Your task to perform on an android device: Open Chrome and go to the settings page Image 0: 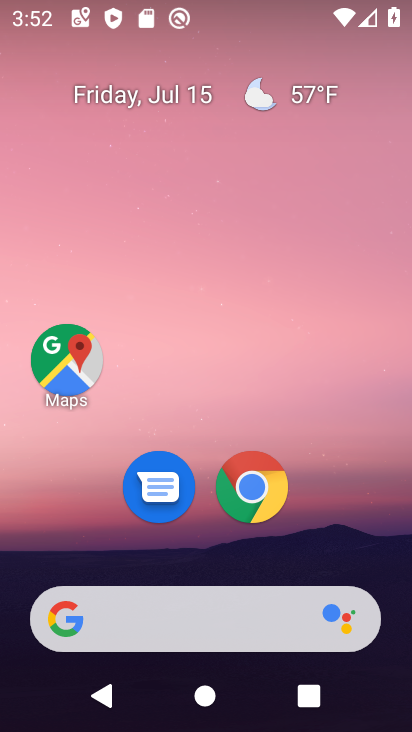
Step 0: drag from (192, 583) to (150, 331)
Your task to perform on an android device: Open Chrome and go to the settings page Image 1: 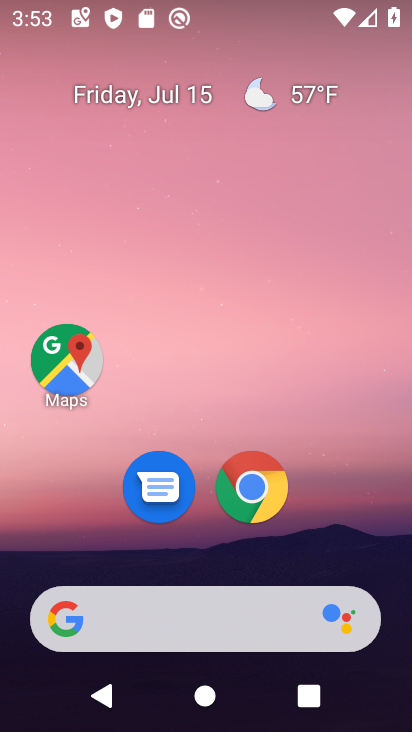
Step 1: drag from (197, 588) to (225, 2)
Your task to perform on an android device: Open Chrome and go to the settings page Image 2: 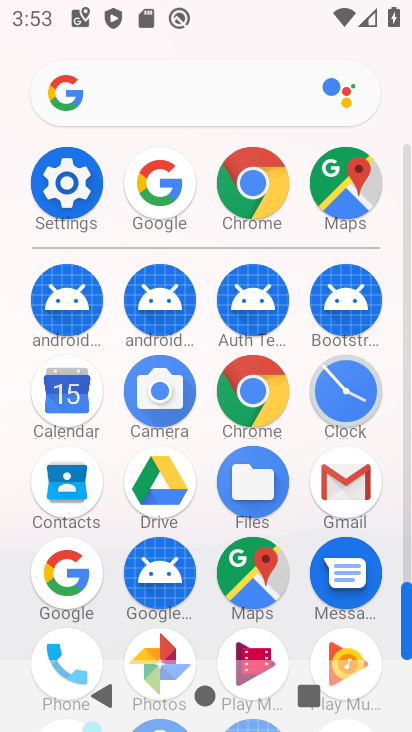
Step 2: click (256, 207)
Your task to perform on an android device: Open Chrome and go to the settings page Image 3: 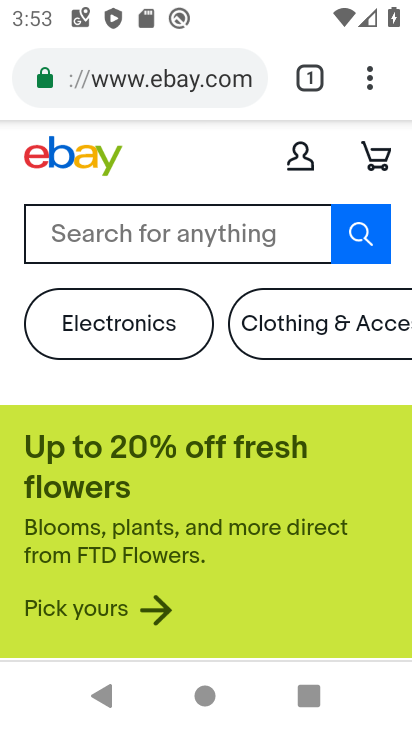
Step 3: click (373, 92)
Your task to perform on an android device: Open Chrome and go to the settings page Image 4: 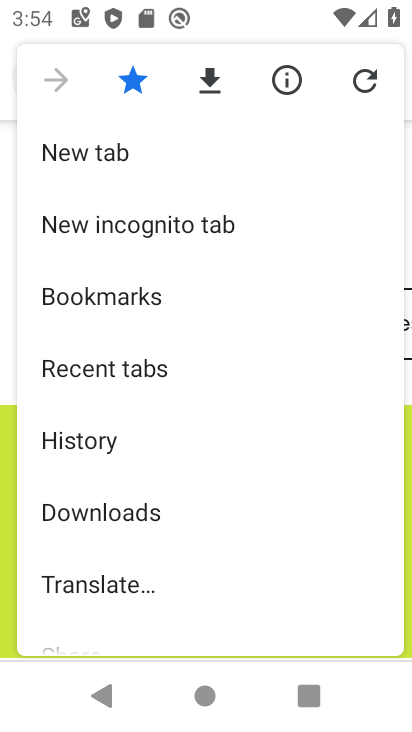
Step 4: drag from (138, 531) to (155, 370)
Your task to perform on an android device: Open Chrome and go to the settings page Image 5: 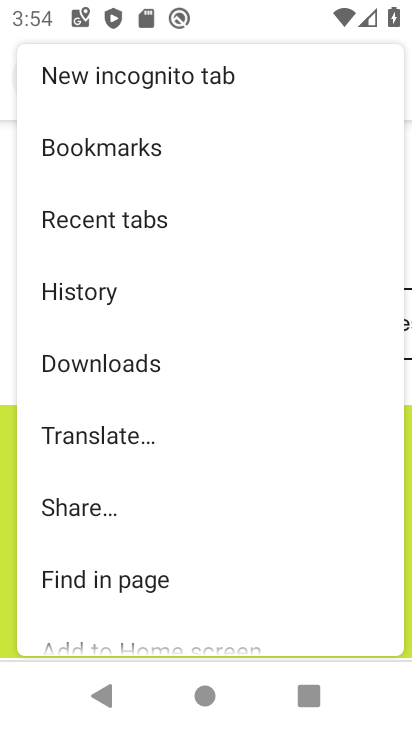
Step 5: drag from (112, 541) to (133, 394)
Your task to perform on an android device: Open Chrome and go to the settings page Image 6: 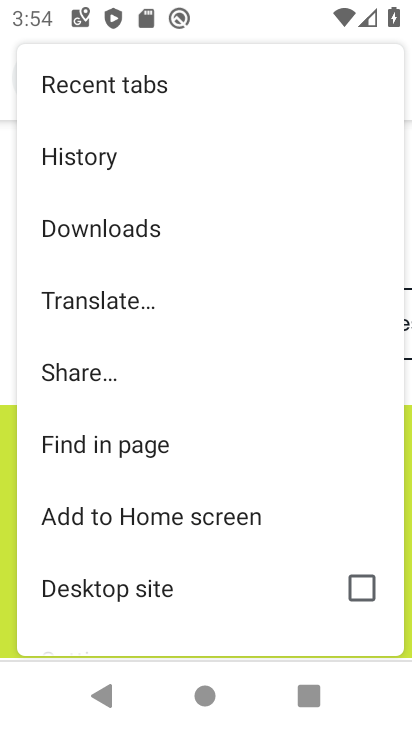
Step 6: drag from (138, 489) to (185, 159)
Your task to perform on an android device: Open Chrome and go to the settings page Image 7: 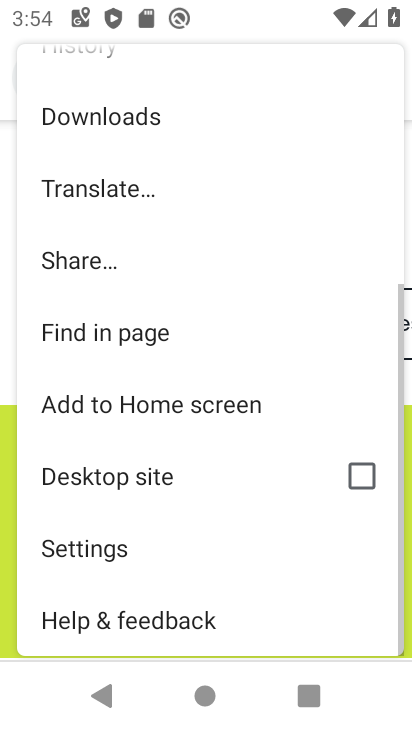
Step 7: click (99, 546)
Your task to perform on an android device: Open Chrome and go to the settings page Image 8: 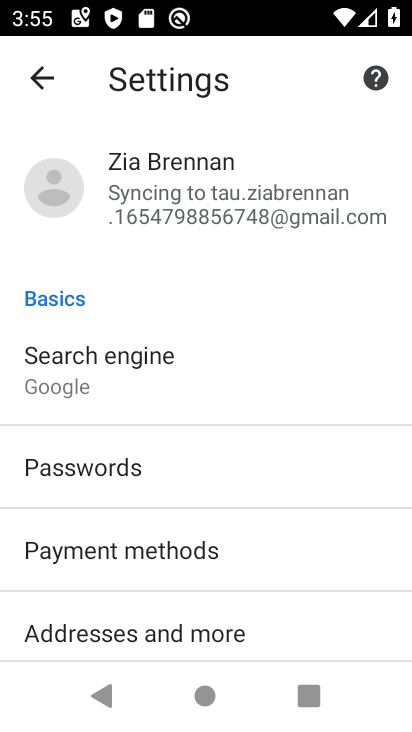
Step 8: task complete